Your task to perform on an android device: Open Google Image 0: 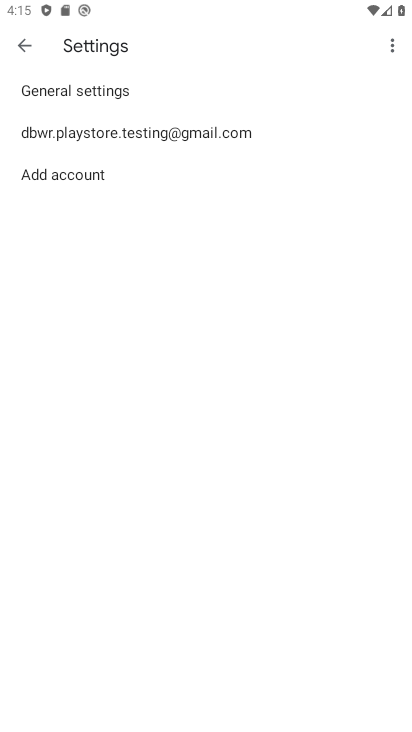
Step 0: press home button
Your task to perform on an android device: Open Google Image 1: 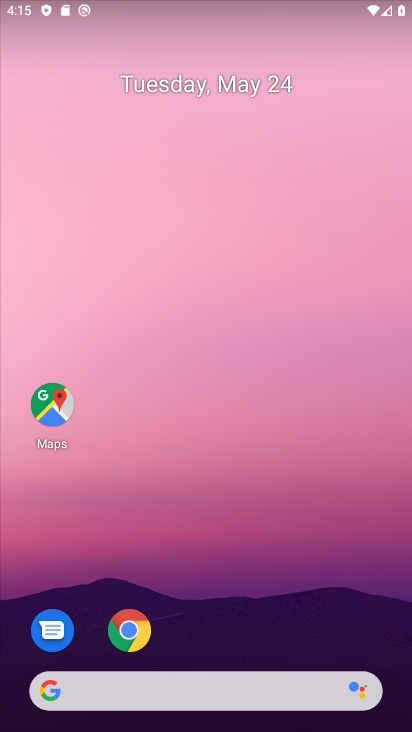
Step 1: click (150, 686)
Your task to perform on an android device: Open Google Image 2: 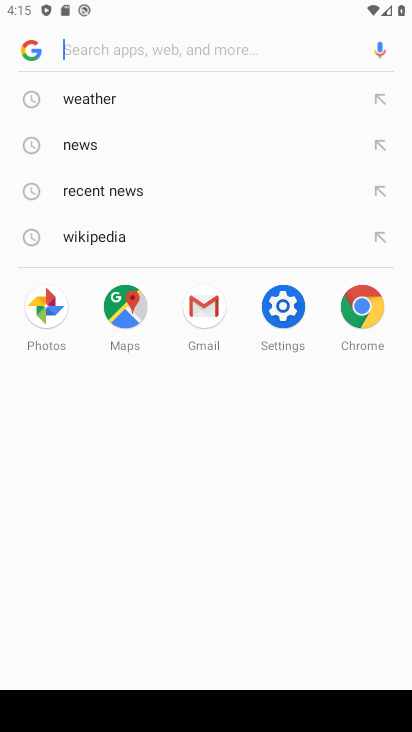
Step 2: task complete